Your task to perform on an android device: Check out the best rated 4k TV on Best Buy. Image 0: 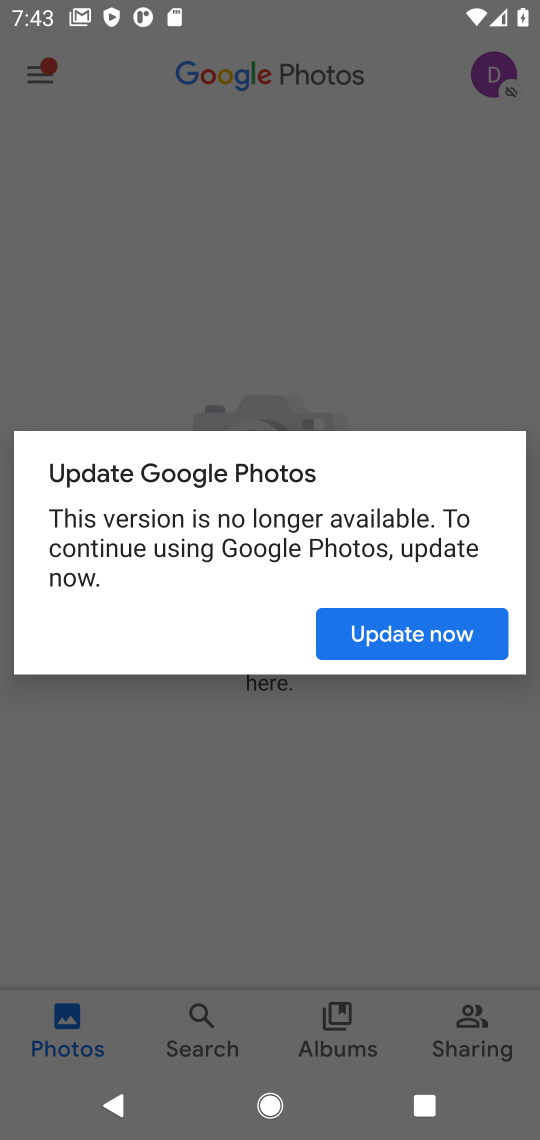
Step 0: press home button
Your task to perform on an android device: Check out the best rated 4k TV on Best Buy. Image 1: 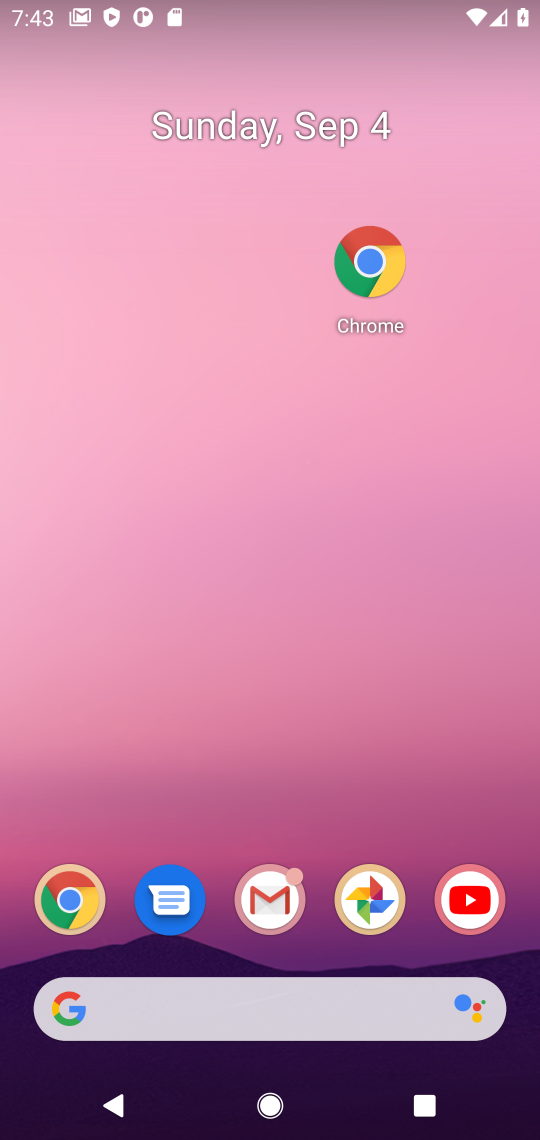
Step 1: click (355, 262)
Your task to perform on an android device: Check out the best rated 4k TV on Best Buy. Image 2: 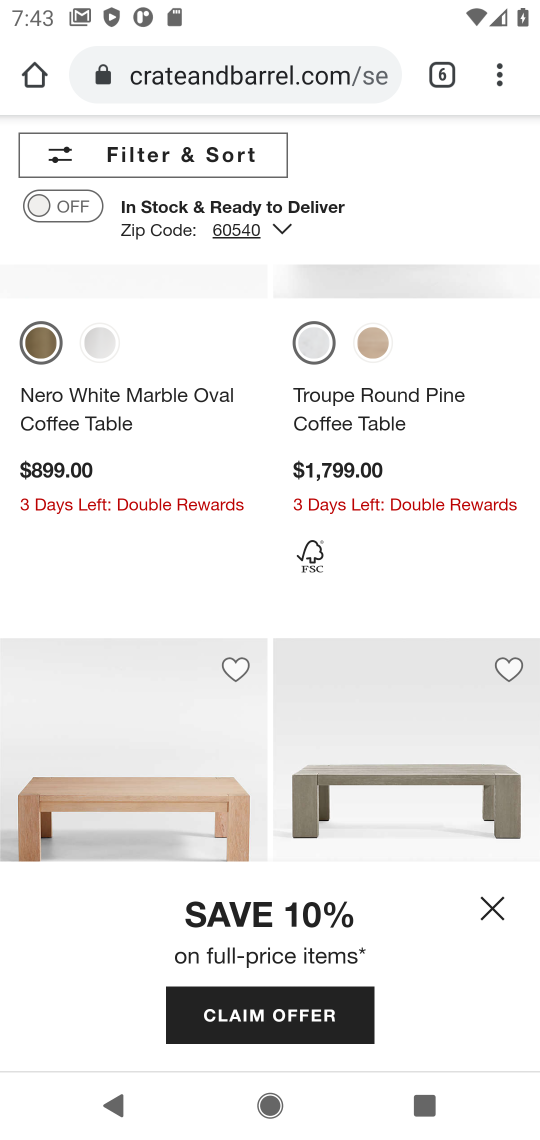
Step 2: click (431, 90)
Your task to perform on an android device: Check out the best rated 4k TV on Best Buy. Image 3: 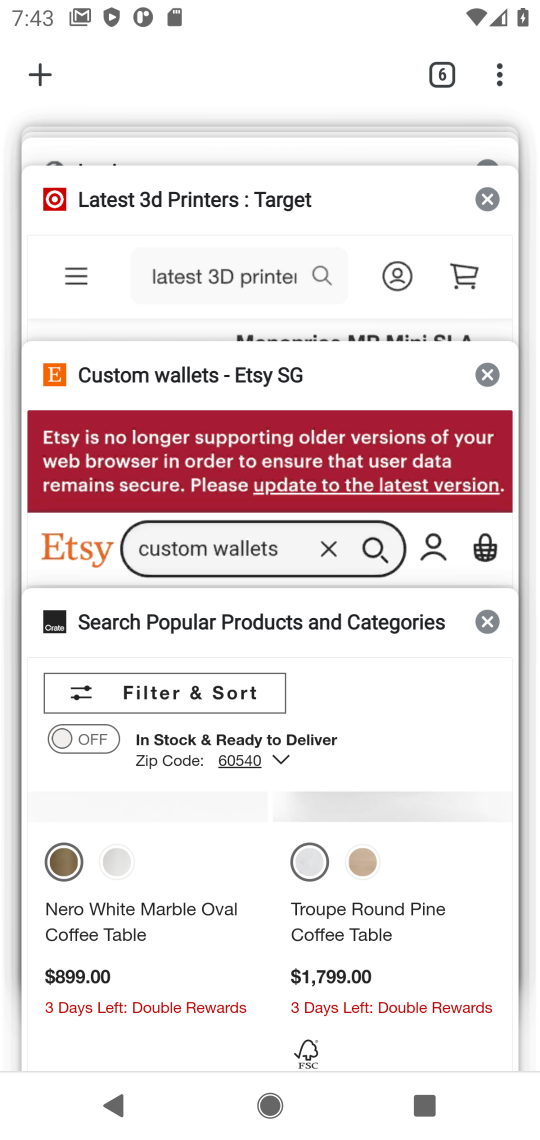
Step 3: drag from (406, 330) to (355, 678)
Your task to perform on an android device: Check out the best rated 4k TV on Best Buy. Image 4: 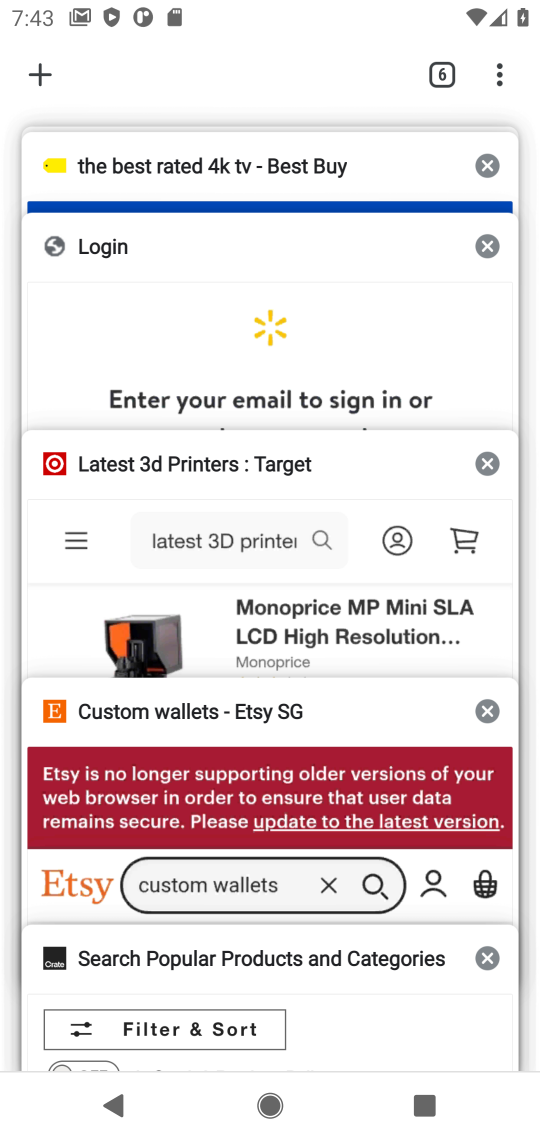
Step 4: click (281, 183)
Your task to perform on an android device: Check out the best rated 4k TV on Best Buy. Image 5: 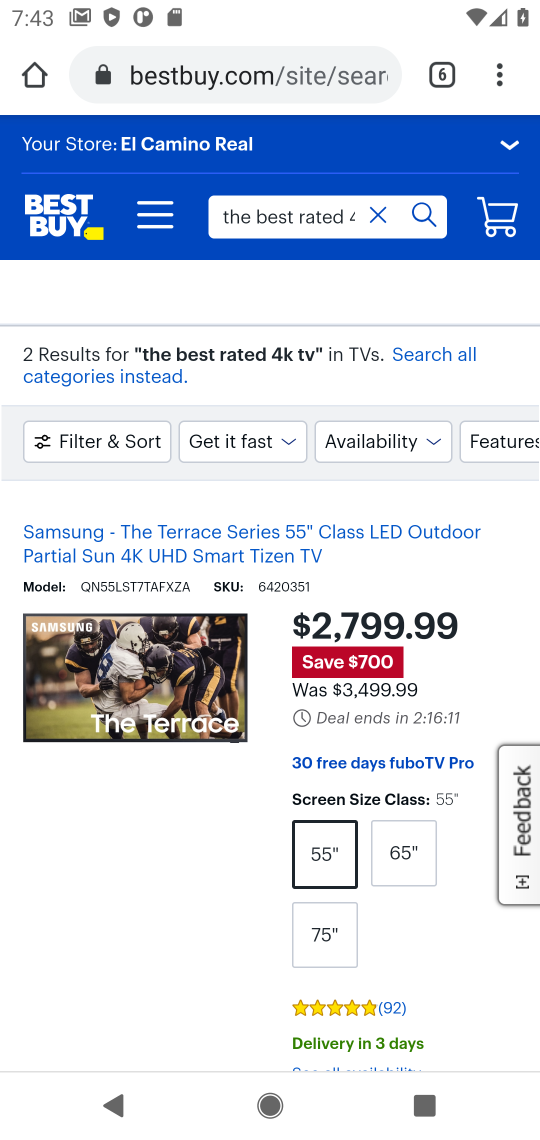
Step 5: task complete